Your task to perform on an android device: open app "Pluto TV - Live TV and Movies" Image 0: 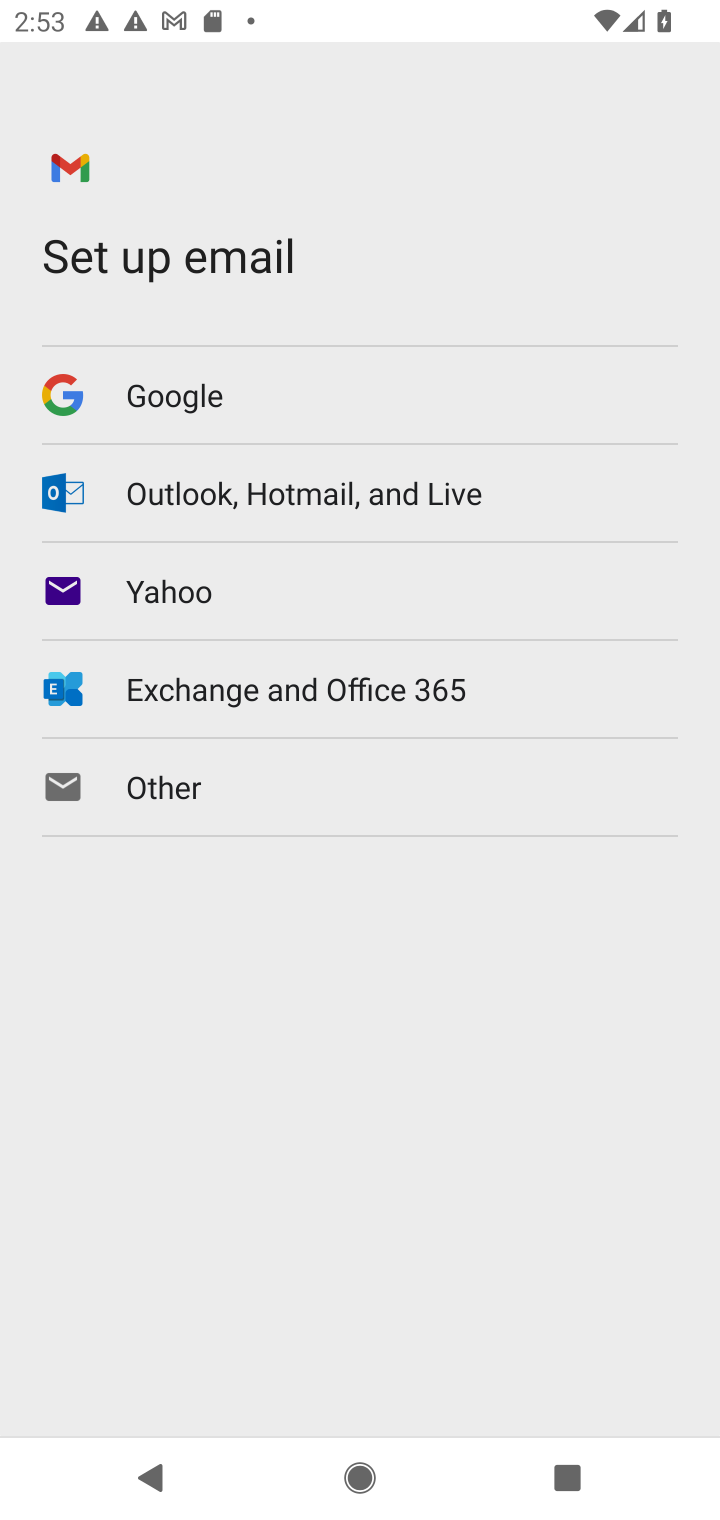
Step 0: press home button
Your task to perform on an android device: open app "Pluto TV - Live TV and Movies" Image 1: 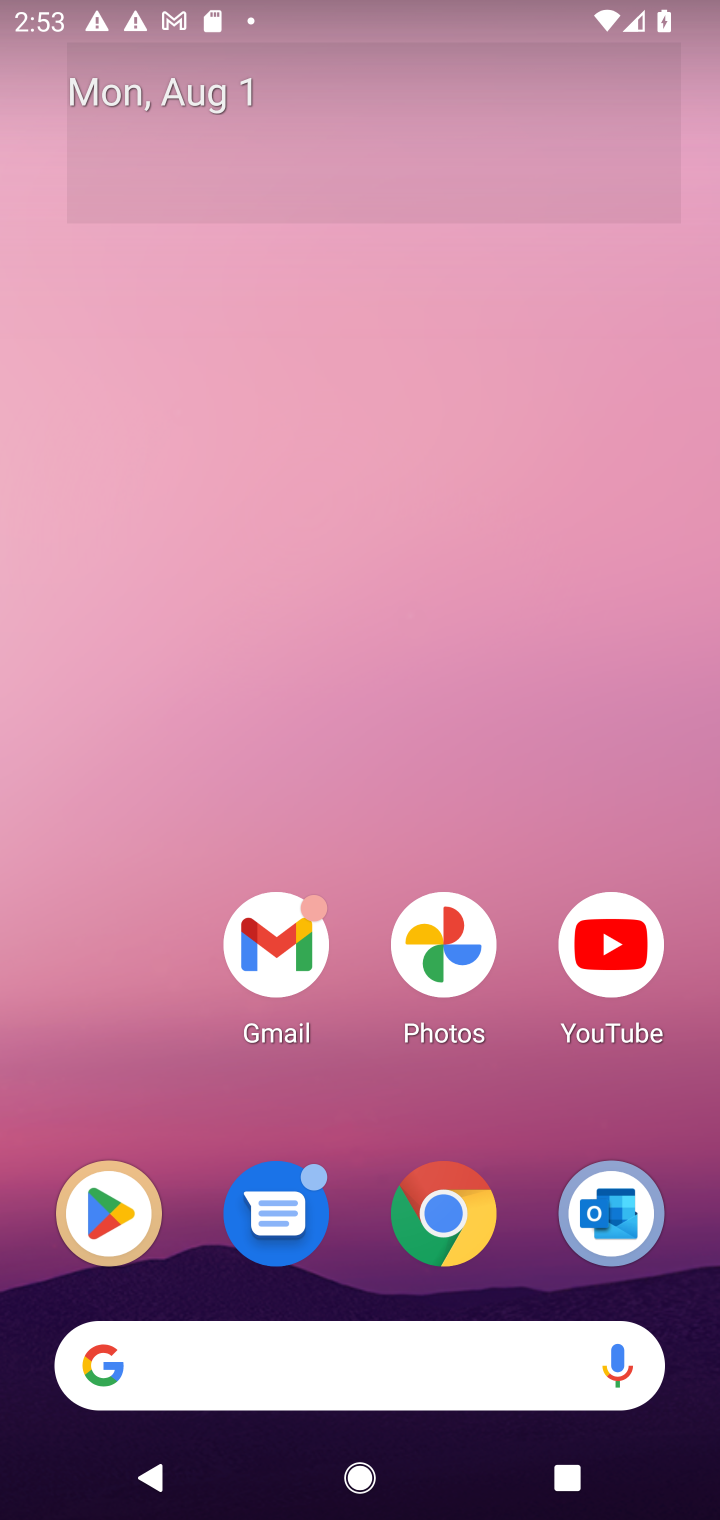
Step 1: drag from (519, 695) to (482, 67)
Your task to perform on an android device: open app "Pluto TV - Live TV and Movies" Image 2: 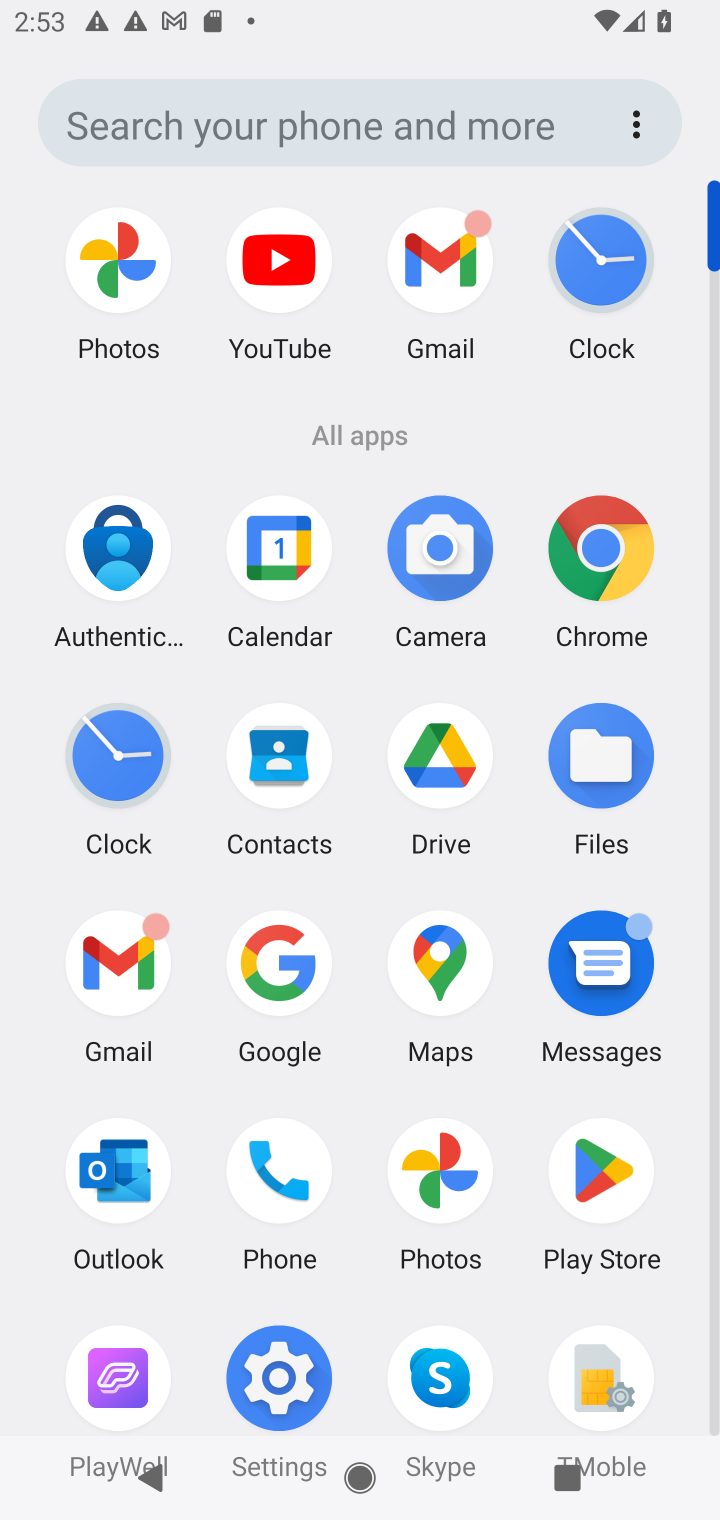
Step 2: click (603, 1183)
Your task to perform on an android device: open app "Pluto TV - Live TV and Movies" Image 3: 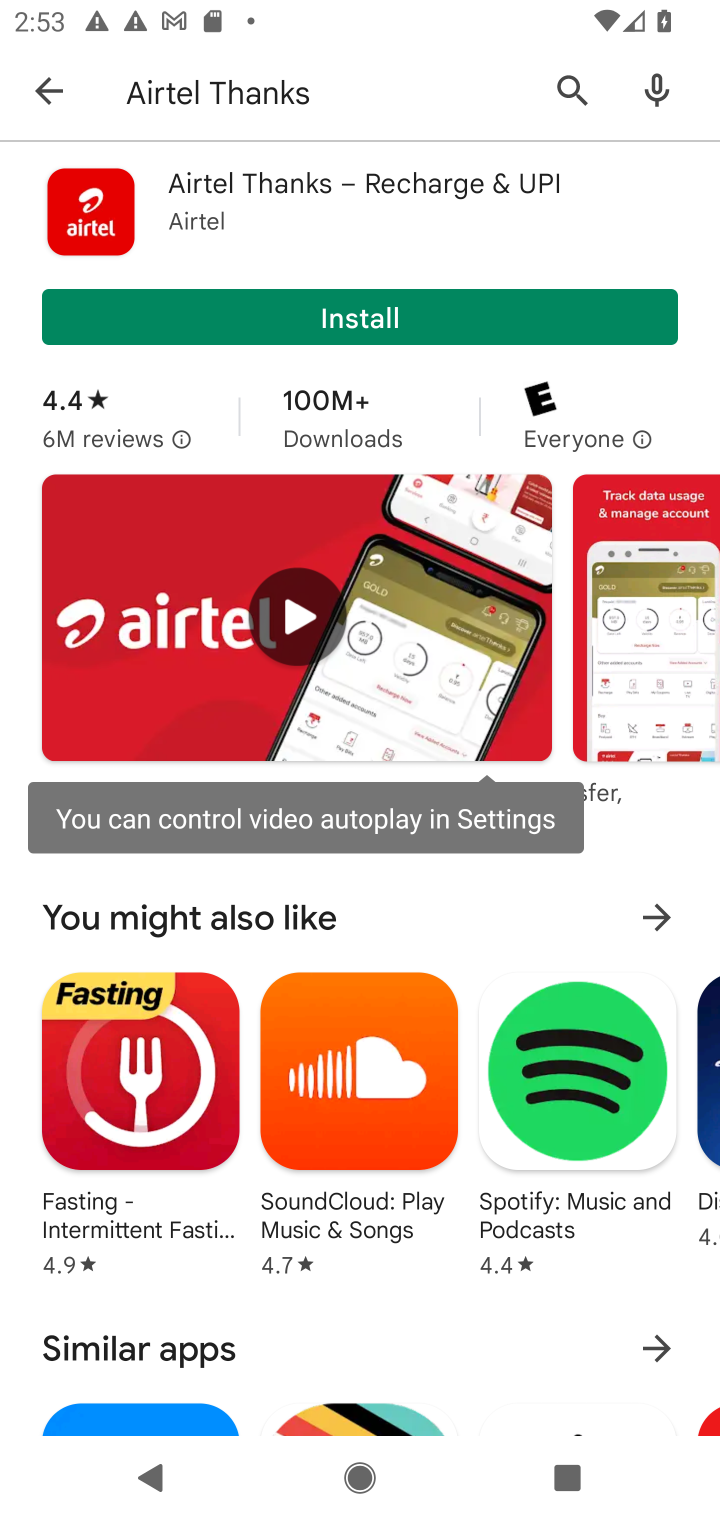
Step 3: click (396, 103)
Your task to perform on an android device: open app "Pluto TV - Live TV and Movies" Image 4: 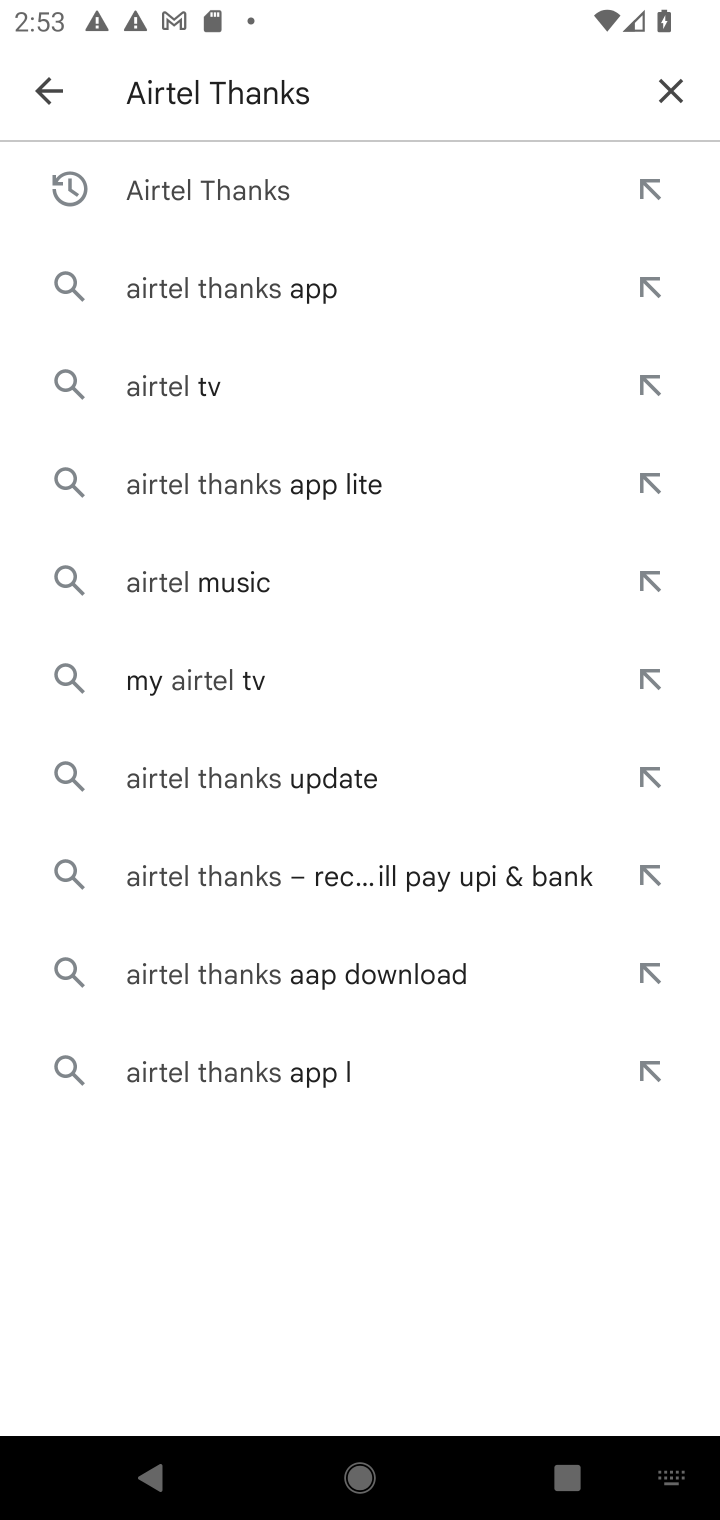
Step 4: click (667, 87)
Your task to perform on an android device: open app "Pluto TV - Live TV and Movies" Image 5: 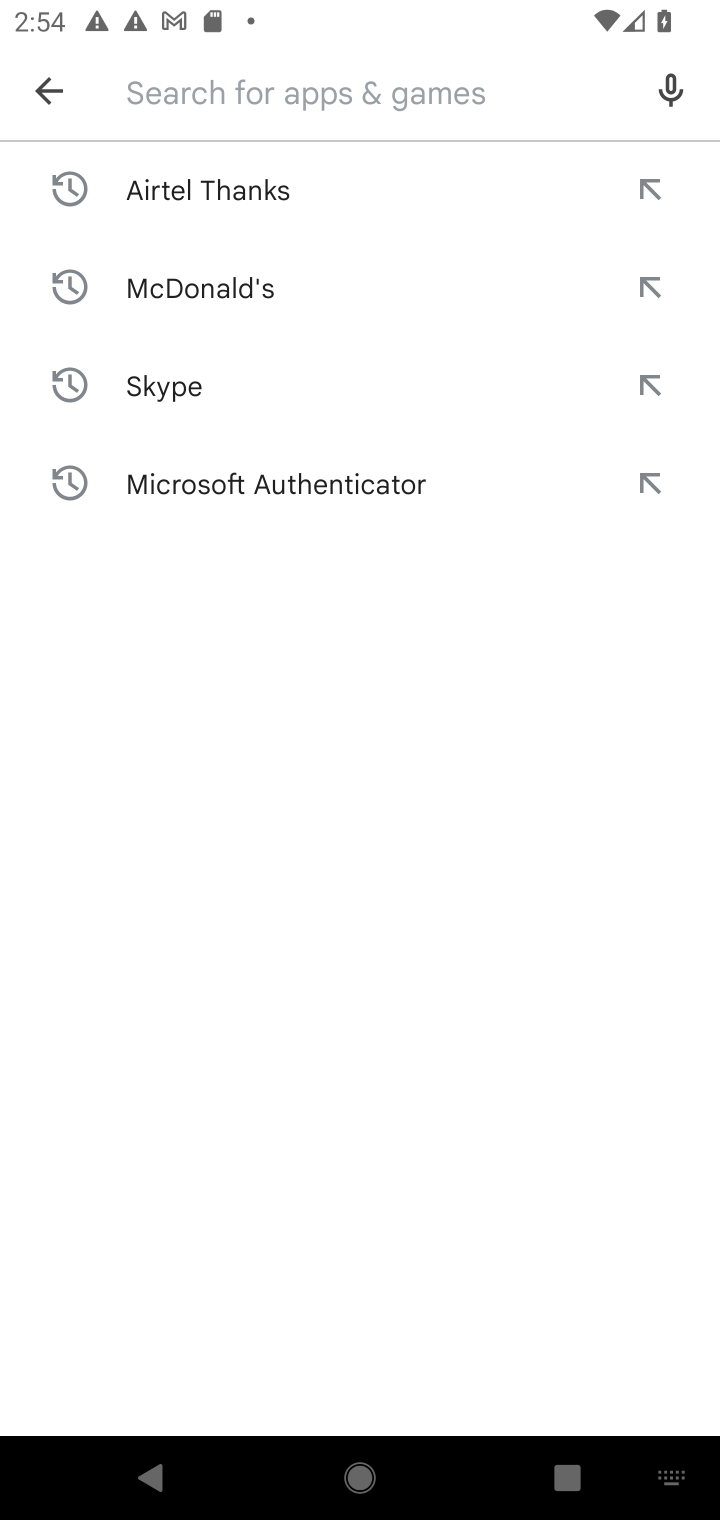
Step 5: type "Pluto TV - Kuve TV and Movies"
Your task to perform on an android device: open app "Pluto TV - Live TV and Movies" Image 6: 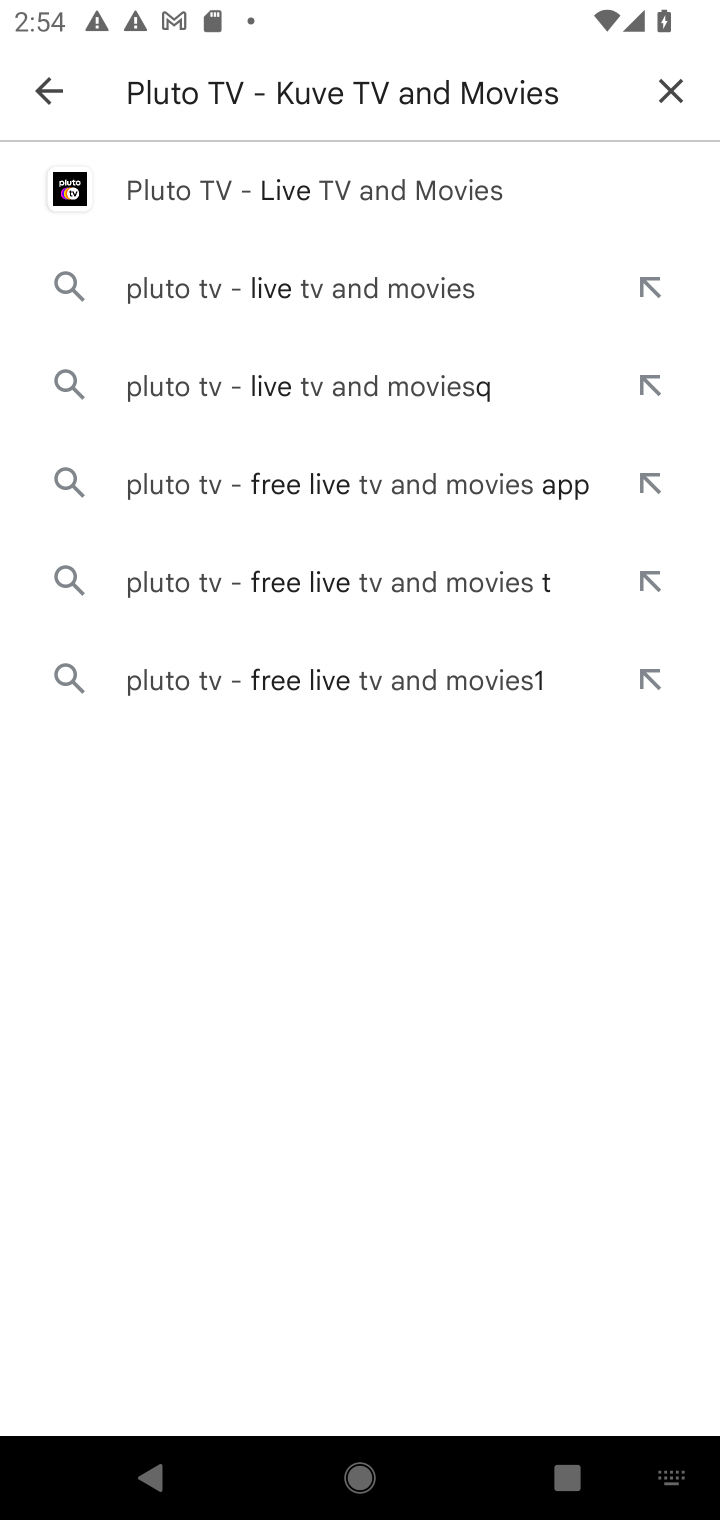
Step 6: click (141, 203)
Your task to perform on an android device: open app "Pluto TV - Live TV and Movies" Image 7: 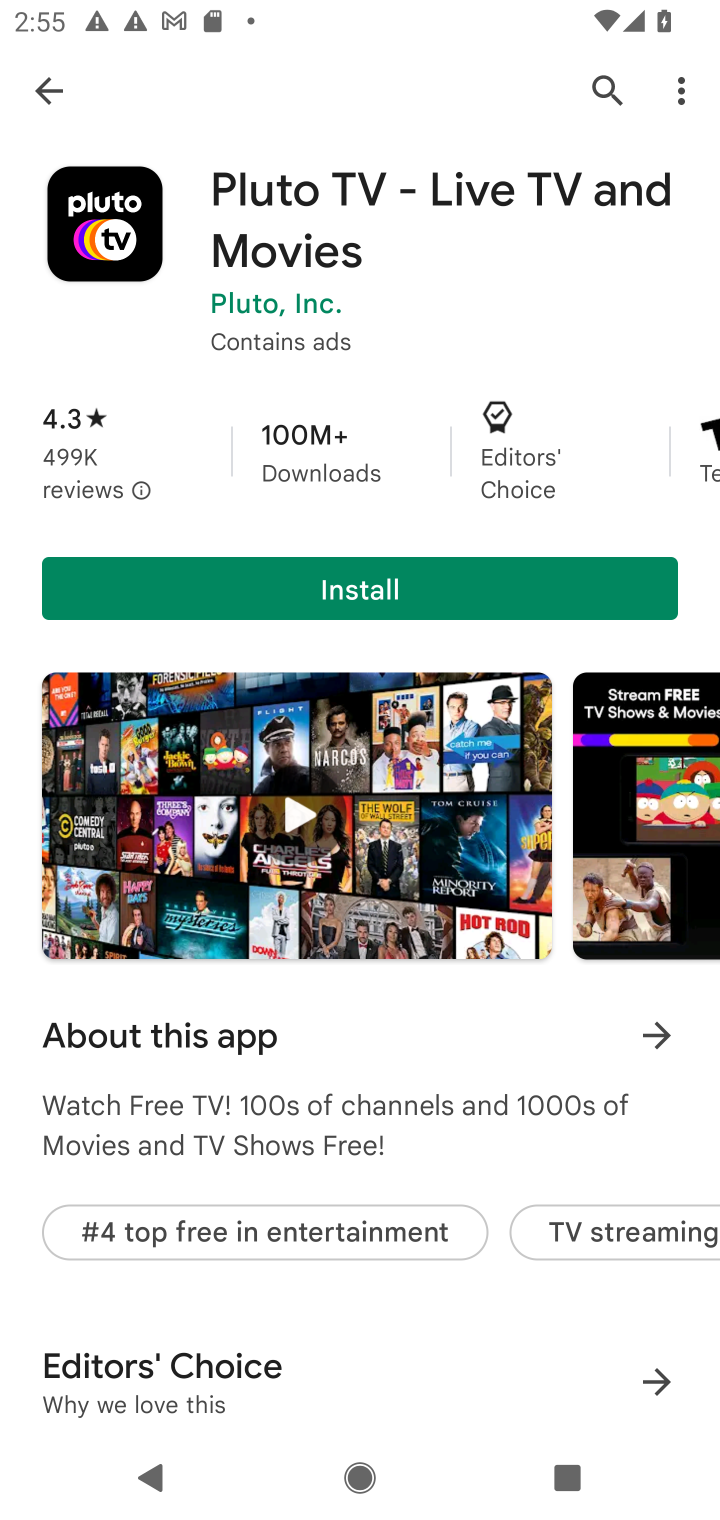
Step 7: task complete